Your task to perform on an android device: Open Yahoo.com Image 0: 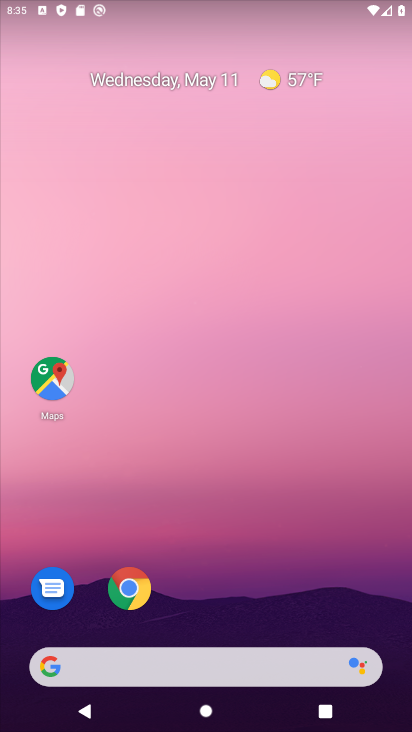
Step 0: click (259, 666)
Your task to perform on an android device: Open Yahoo.com Image 1: 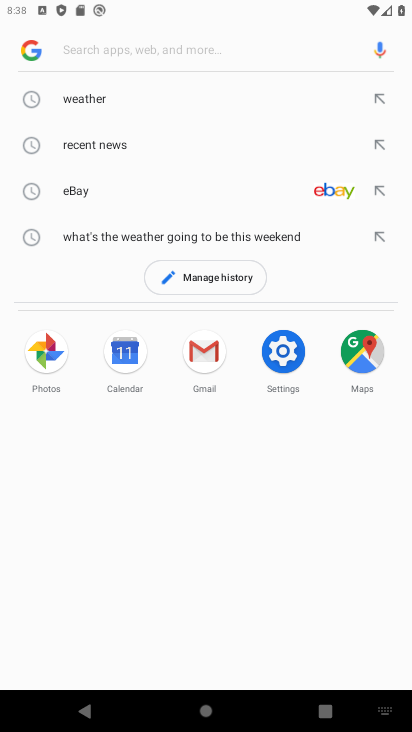
Step 1: type "yahoo.com"
Your task to perform on an android device: Open Yahoo.com Image 2: 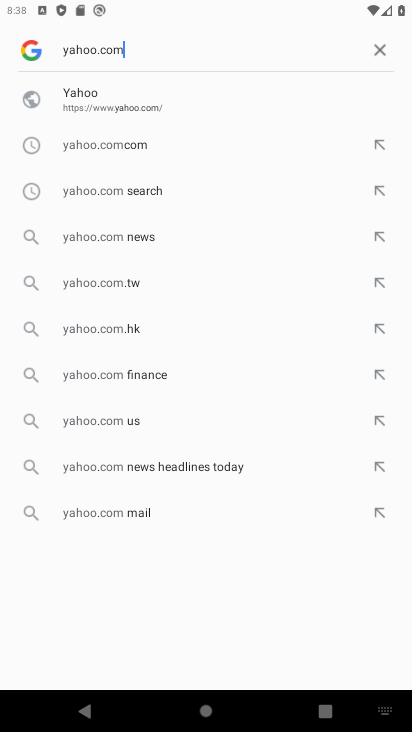
Step 2: click (162, 109)
Your task to perform on an android device: Open Yahoo.com Image 3: 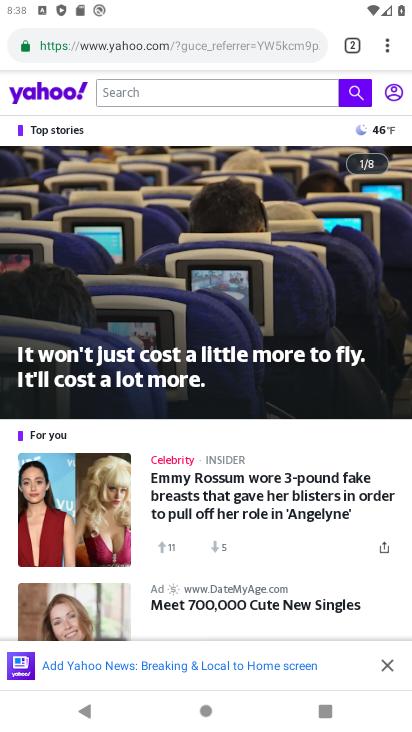
Step 3: task complete